Your task to perform on an android device: Show me productivity apps on the Play Store Image 0: 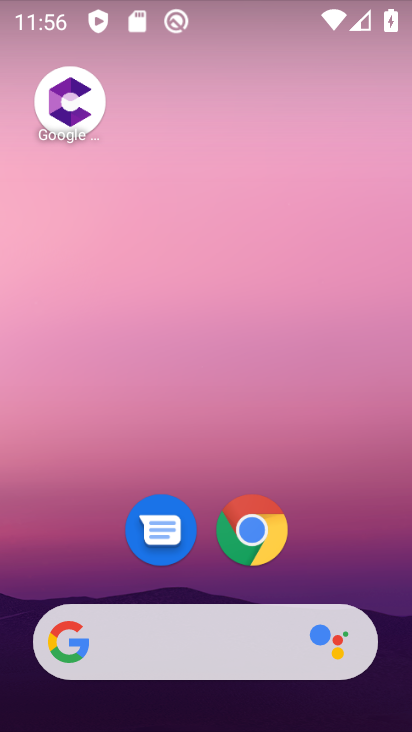
Step 0: drag from (65, 579) to (242, 114)
Your task to perform on an android device: Show me productivity apps on the Play Store Image 1: 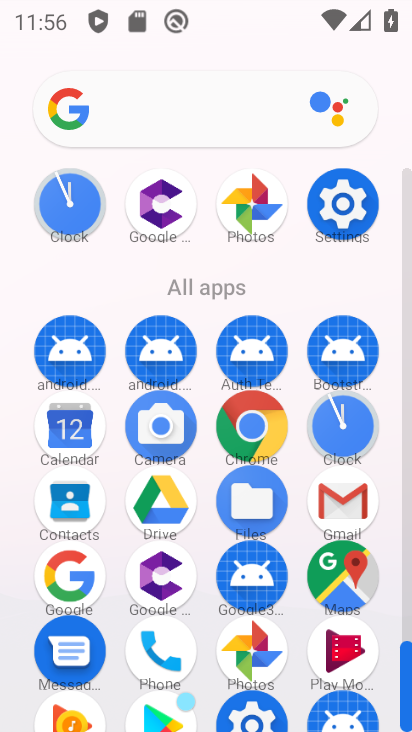
Step 1: drag from (169, 631) to (257, 441)
Your task to perform on an android device: Show me productivity apps on the Play Store Image 2: 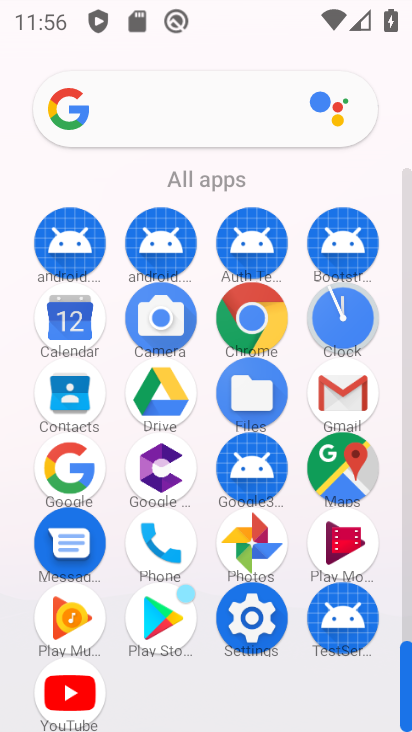
Step 2: click (147, 630)
Your task to perform on an android device: Show me productivity apps on the Play Store Image 3: 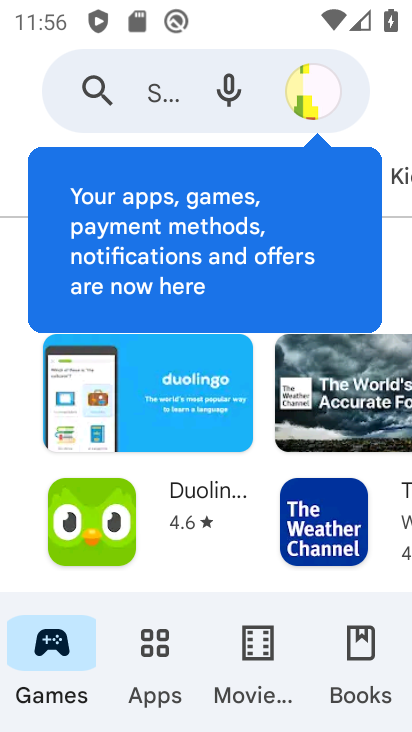
Step 3: click (162, 659)
Your task to perform on an android device: Show me productivity apps on the Play Store Image 4: 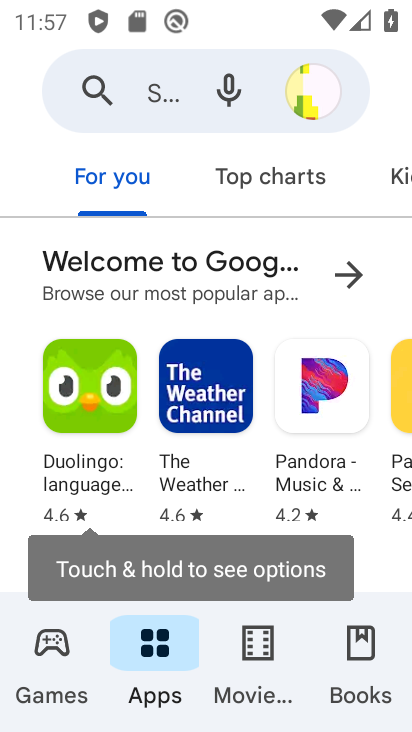
Step 4: drag from (366, 181) to (150, 181)
Your task to perform on an android device: Show me productivity apps on the Play Store Image 5: 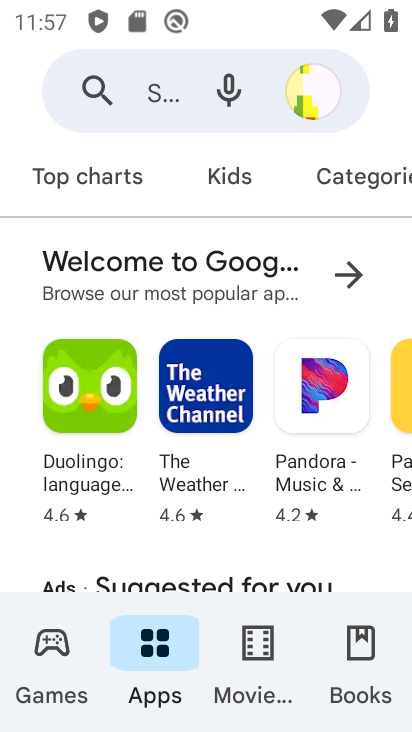
Step 5: click (365, 180)
Your task to perform on an android device: Show me productivity apps on the Play Store Image 6: 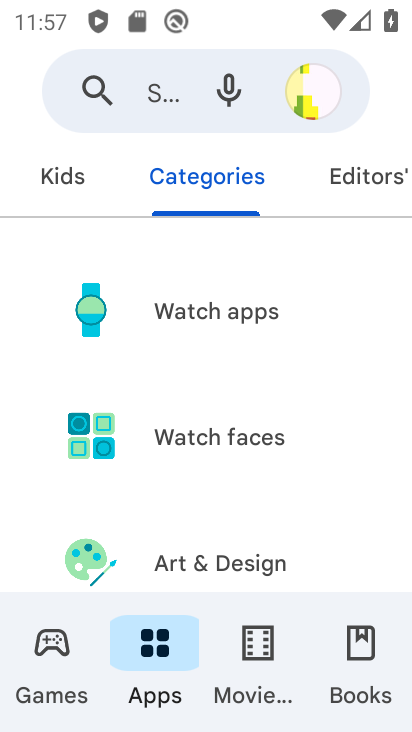
Step 6: drag from (284, 560) to (372, 221)
Your task to perform on an android device: Show me productivity apps on the Play Store Image 7: 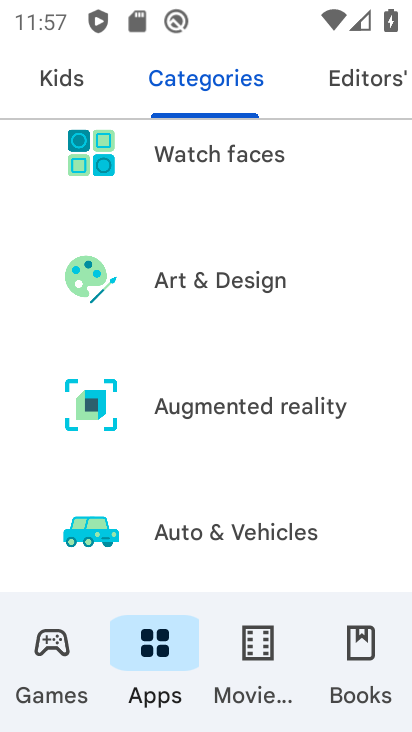
Step 7: drag from (250, 527) to (376, 170)
Your task to perform on an android device: Show me productivity apps on the Play Store Image 8: 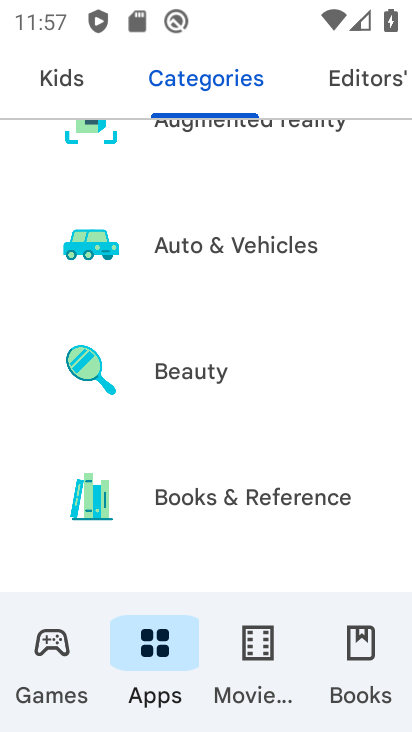
Step 8: drag from (216, 557) to (323, 227)
Your task to perform on an android device: Show me productivity apps on the Play Store Image 9: 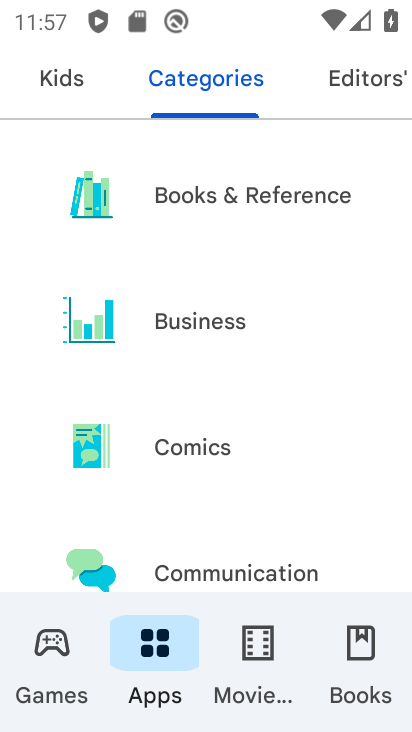
Step 9: drag from (245, 548) to (348, 81)
Your task to perform on an android device: Show me productivity apps on the Play Store Image 10: 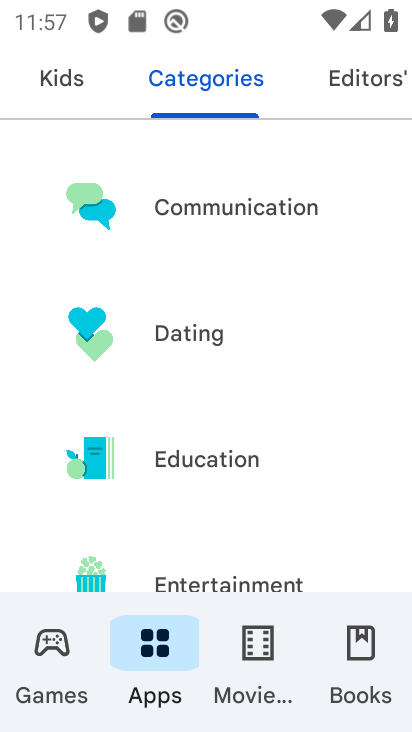
Step 10: drag from (236, 556) to (299, 206)
Your task to perform on an android device: Show me productivity apps on the Play Store Image 11: 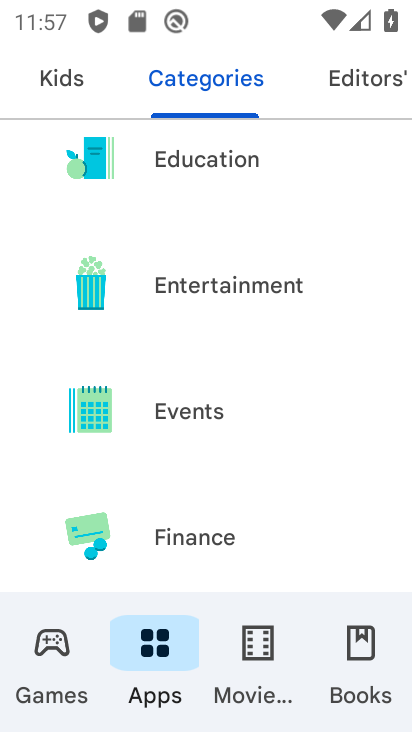
Step 11: drag from (229, 520) to (331, 193)
Your task to perform on an android device: Show me productivity apps on the Play Store Image 12: 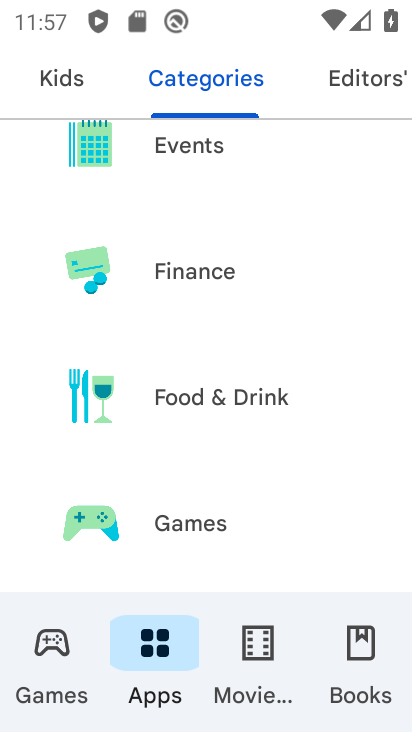
Step 12: drag from (274, 322) to (329, 141)
Your task to perform on an android device: Show me productivity apps on the Play Store Image 13: 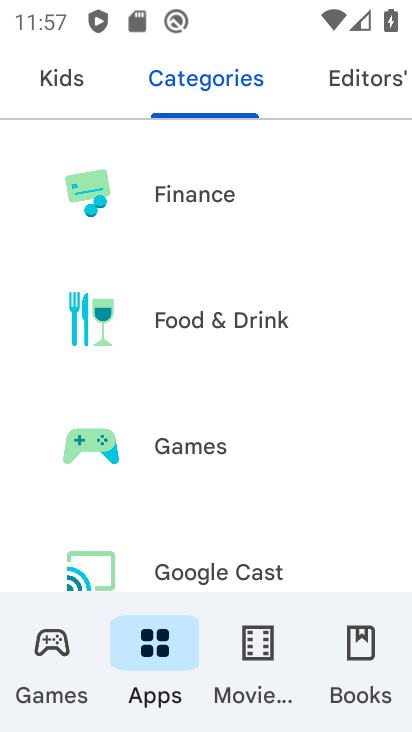
Step 13: drag from (217, 508) to (319, 225)
Your task to perform on an android device: Show me productivity apps on the Play Store Image 14: 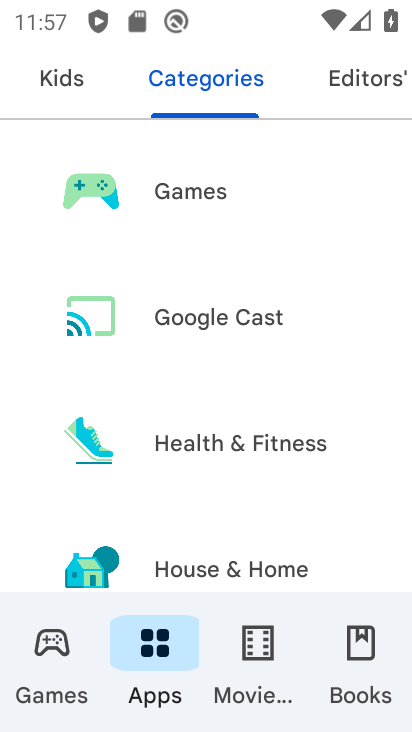
Step 14: drag from (240, 479) to (308, 163)
Your task to perform on an android device: Show me productivity apps on the Play Store Image 15: 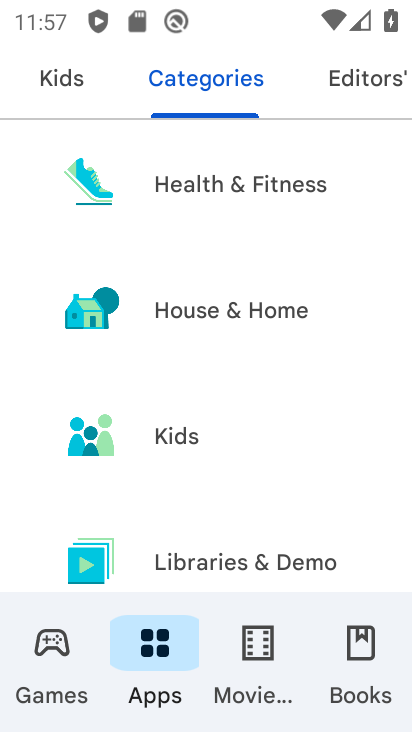
Step 15: drag from (127, 500) to (269, 62)
Your task to perform on an android device: Show me productivity apps on the Play Store Image 16: 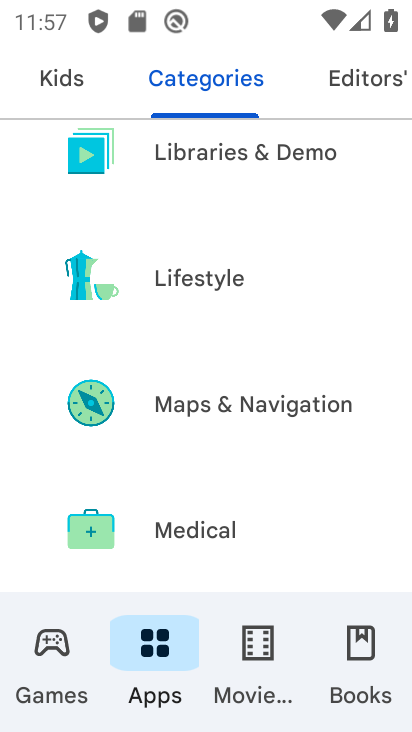
Step 16: drag from (156, 513) to (307, 137)
Your task to perform on an android device: Show me productivity apps on the Play Store Image 17: 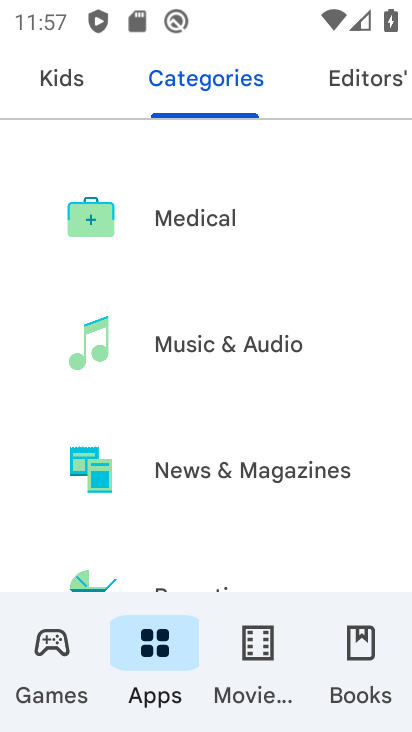
Step 17: drag from (180, 477) to (282, 156)
Your task to perform on an android device: Show me productivity apps on the Play Store Image 18: 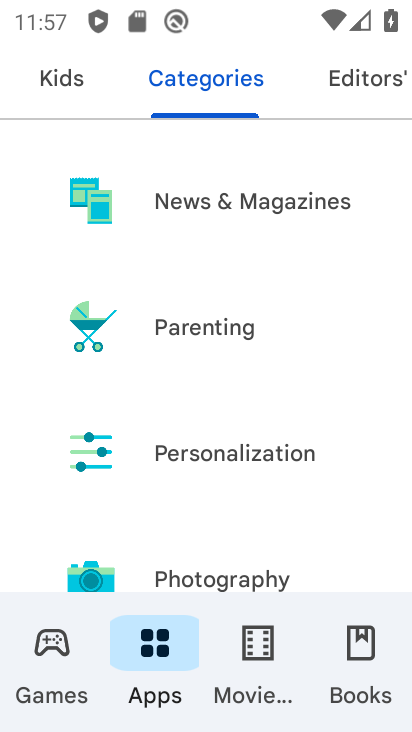
Step 18: drag from (203, 531) to (296, 166)
Your task to perform on an android device: Show me productivity apps on the Play Store Image 19: 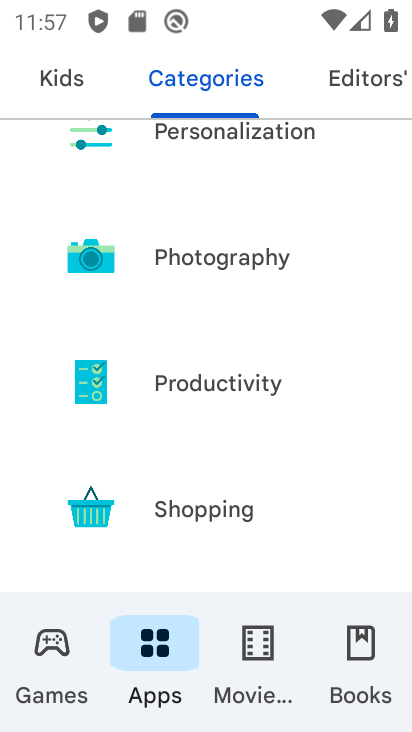
Step 19: click (241, 416)
Your task to perform on an android device: Show me productivity apps on the Play Store Image 20: 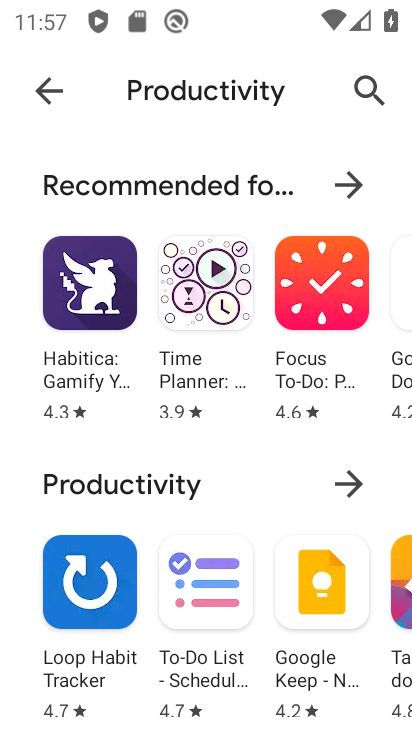
Step 20: task complete